Your task to perform on an android device: Open Google Maps Image 0: 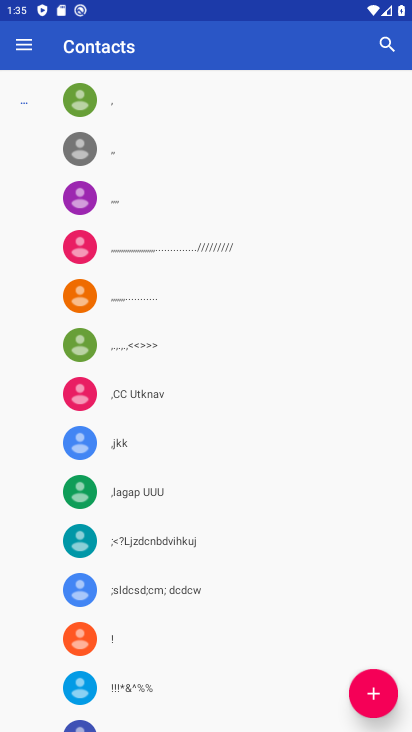
Step 0: press home button
Your task to perform on an android device: Open Google Maps Image 1: 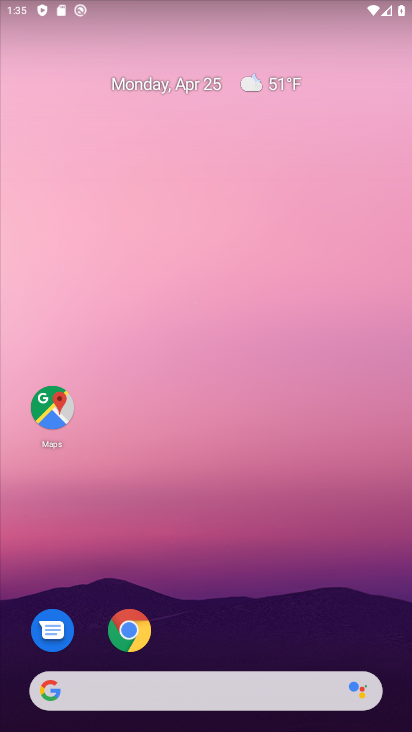
Step 1: drag from (318, 519) to (294, 161)
Your task to perform on an android device: Open Google Maps Image 2: 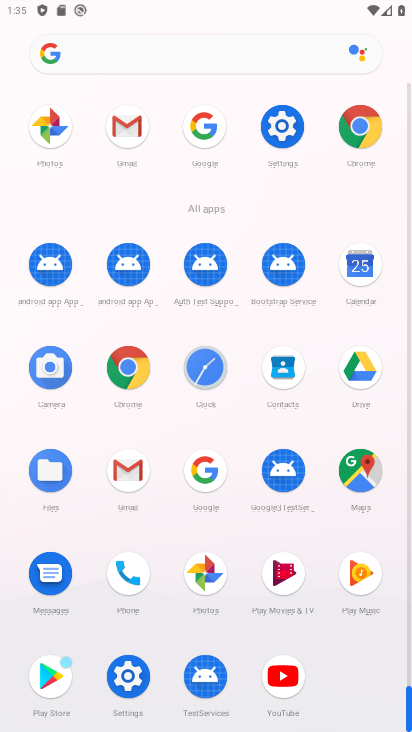
Step 2: click (216, 127)
Your task to perform on an android device: Open Google Maps Image 3: 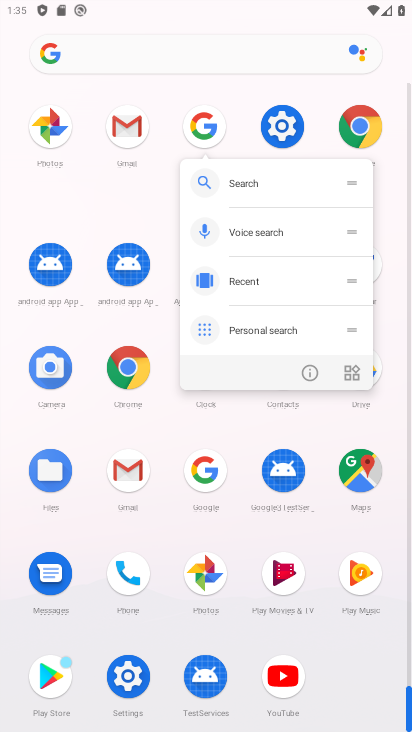
Step 3: click (204, 133)
Your task to perform on an android device: Open Google Maps Image 4: 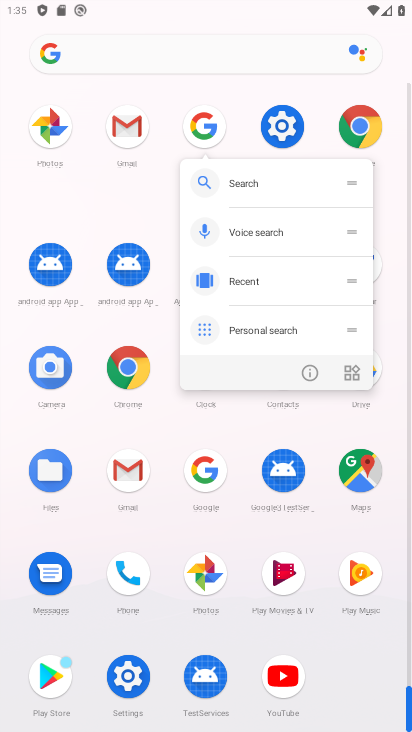
Step 4: click (207, 121)
Your task to perform on an android device: Open Google Maps Image 5: 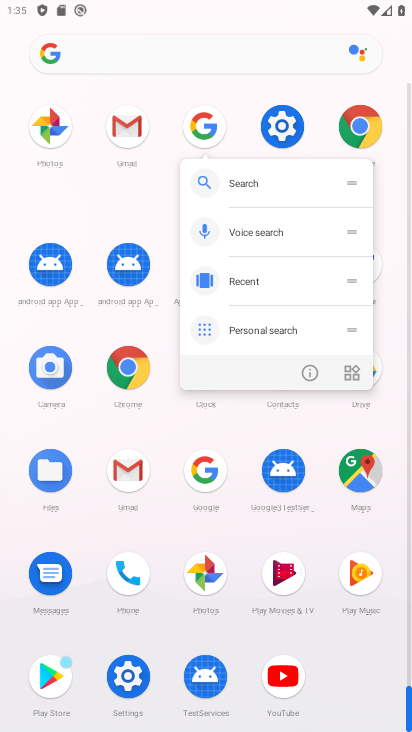
Step 5: click (206, 120)
Your task to perform on an android device: Open Google Maps Image 6: 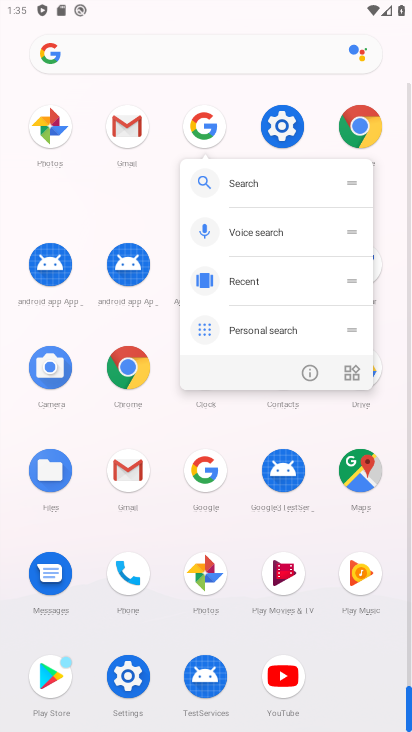
Step 6: click (206, 122)
Your task to perform on an android device: Open Google Maps Image 7: 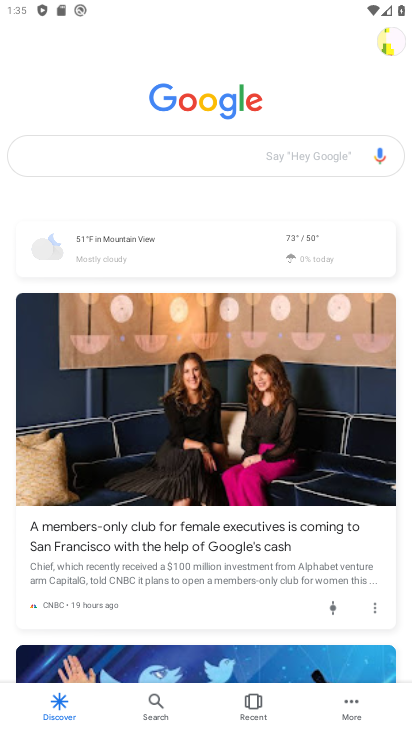
Step 7: task complete